Your task to perform on an android device: Open settings Image 0: 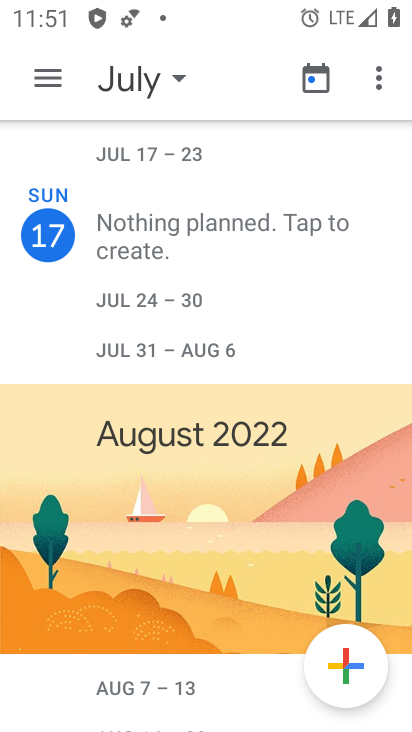
Step 0: press back button
Your task to perform on an android device: Open settings Image 1: 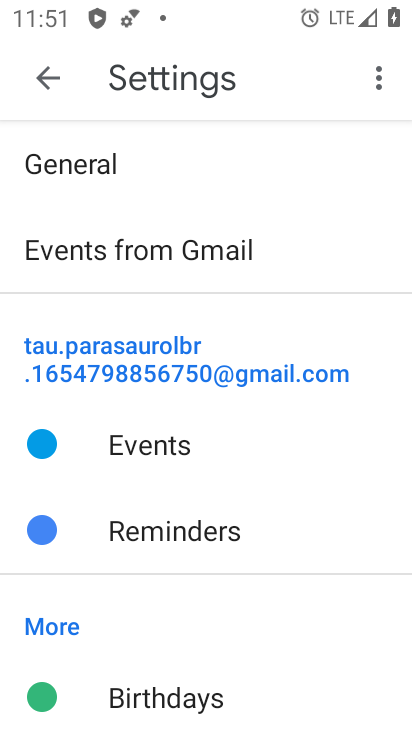
Step 1: press back button
Your task to perform on an android device: Open settings Image 2: 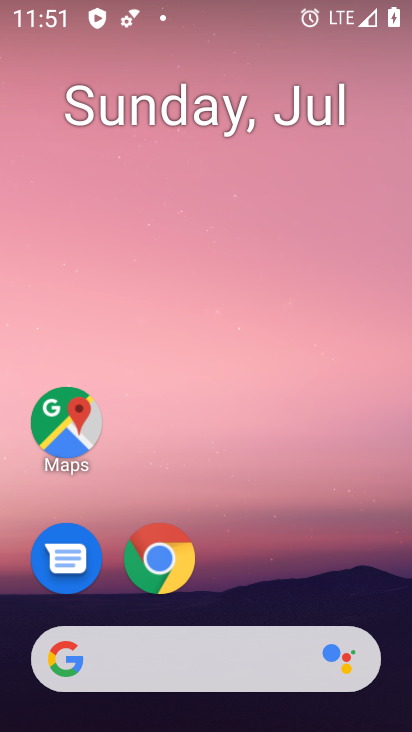
Step 2: drag from (234, 564) to (260, 28)
Your task to perform on an android device: Open settings Image 3: 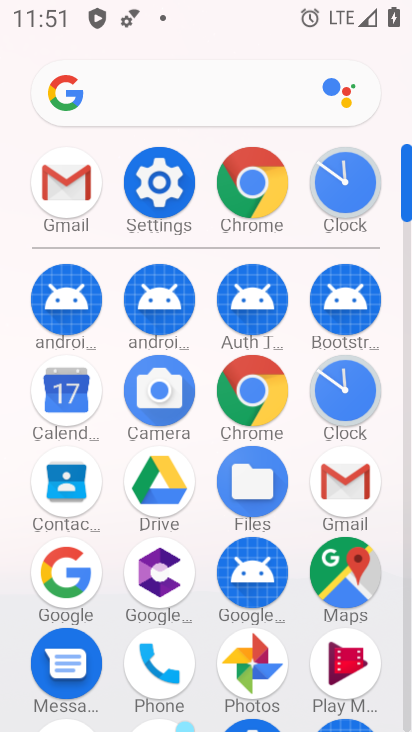
Step 3: click (160, 173)
Your task to perform on an android device: Open settings Image 4: 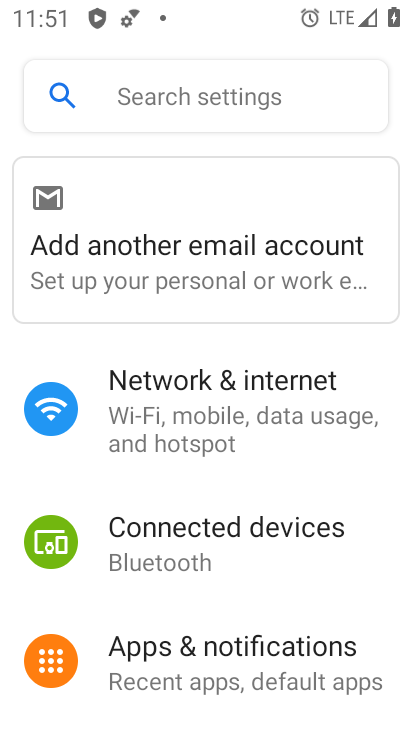
Step 4: task complete